Your task to perform on an android device: turn on showing notifications on the lock screen Image 0: 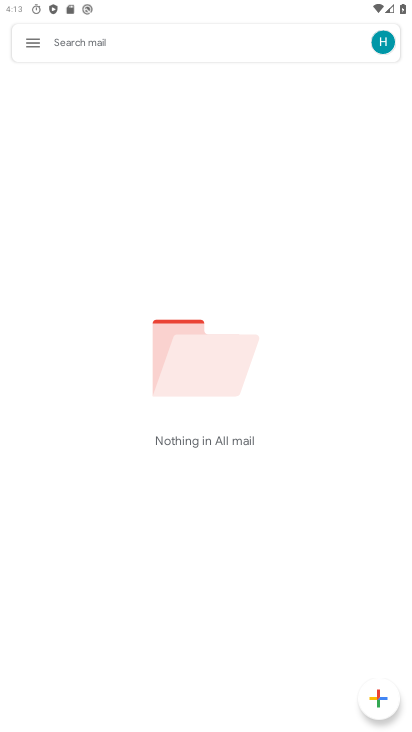
Step 0: press home button
Your task to perform on an android device: turn on showing notifications on the lock screen Image 1: 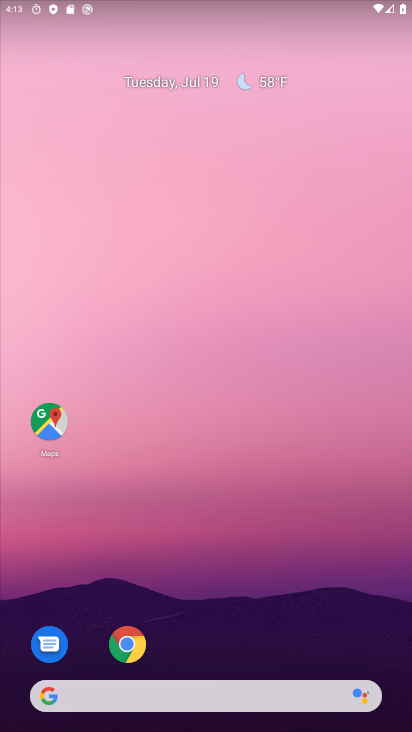
Step 1: drag from (314, 583) to (280, 55)
Your task to perform on an android device: turn on showing notifications on the lock screen Image 2: 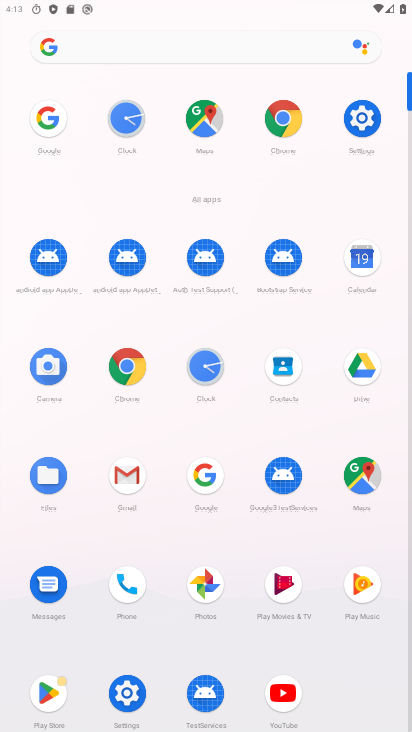
Step 2: click (355, 117)
Your task to perform on an android device: turn on showing notifications on the lock screen Image 3: 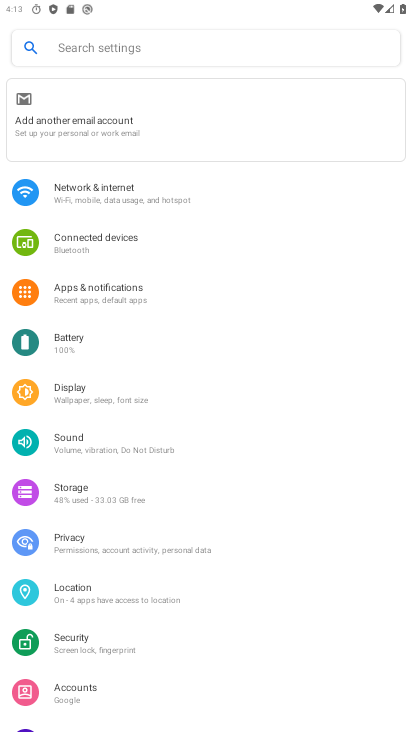
Step 3: click (125, 300)
Your task to perform on an android device: turn on showing notifications on the lock screen Image 4: 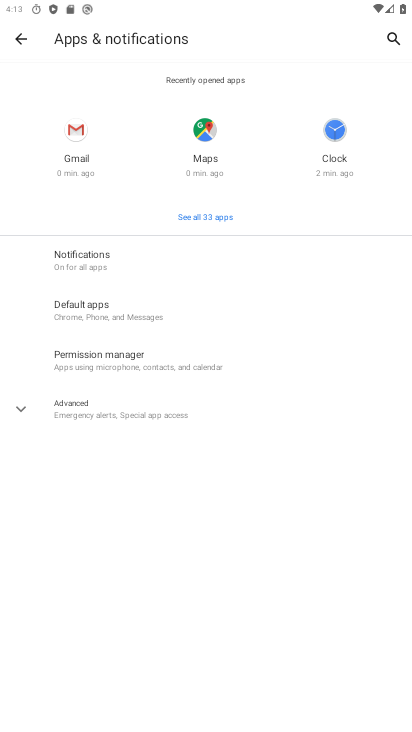
Step 4: click (105, 264)
Your task to perform on an android device: turn on showing notifications on the lock screen Image 5: 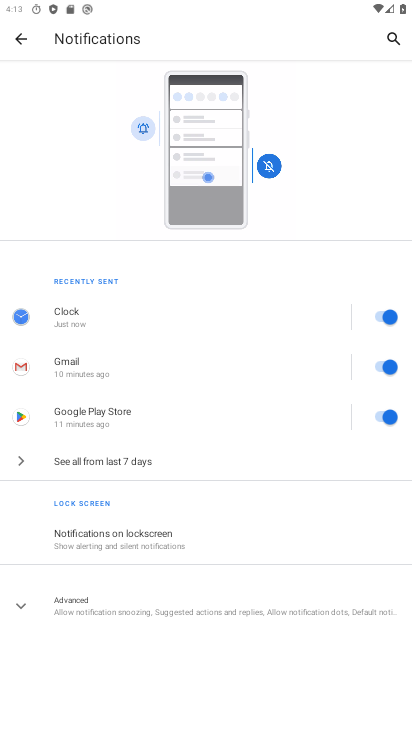
Step 5: click (153, 538)
Your task to perform on an android device: turn on showing notifications on the lock screen Image 6: 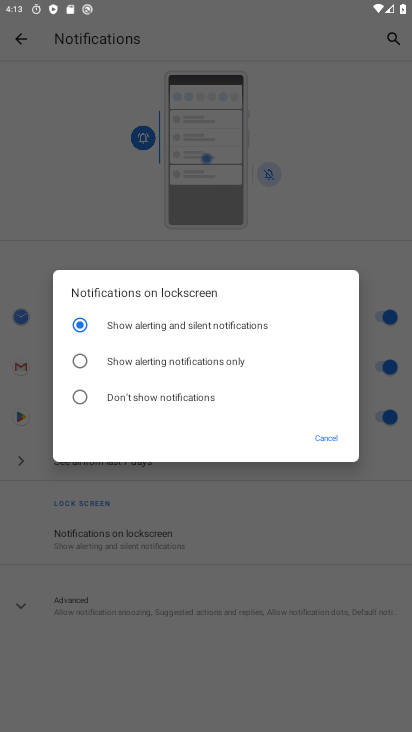
Step 6: click (176, 358)
Your task to perform on an android device: turn on showing notifications on the lock screen Image 7: 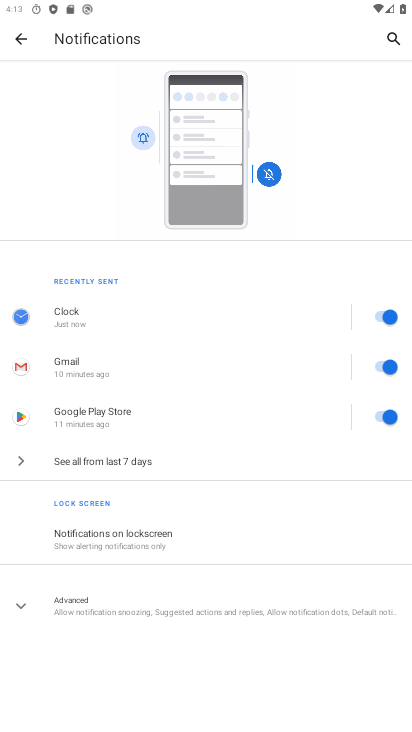
Step 7: task complete